Your task to perform on an android device: What's the weather today? Image 0: 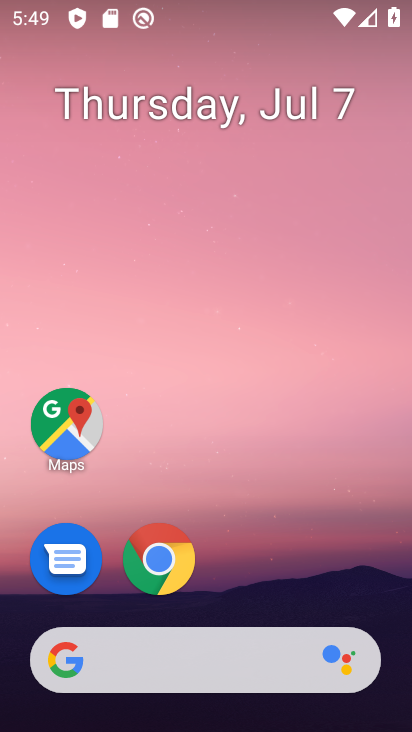
Step 0: drag from (243, 580) to (276, 180)
Your task to perform on an android device: What's the weather today? Image 1: 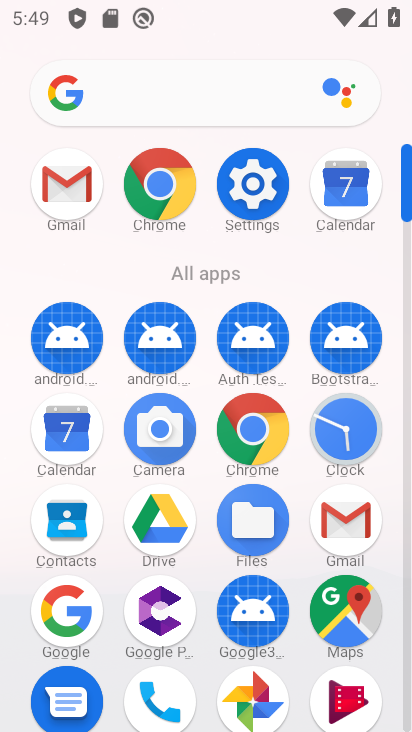
Step 1: click (88, 599)
Your task to perform on an android device: What's the weather today? Image 2: 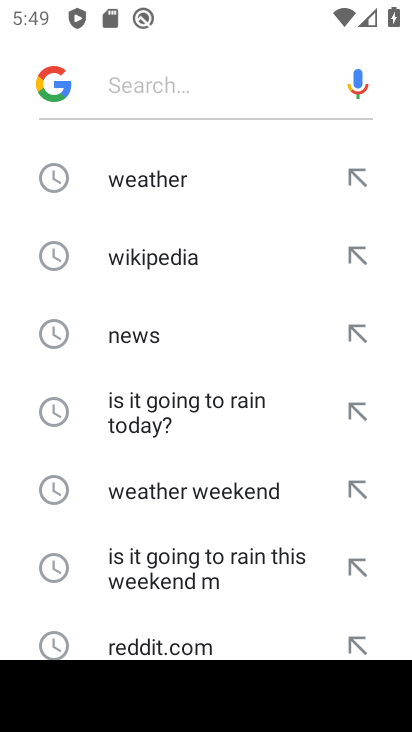
Step 2: click (153, 179)
Your task to perform on an android device: What's the weather today? Image 3: 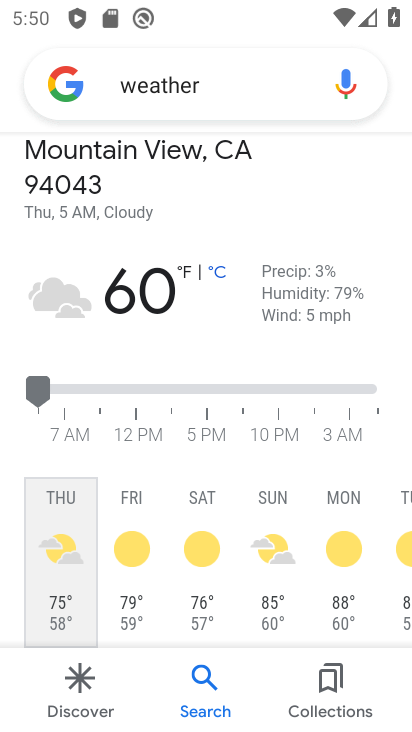
Step 3: task complete